Your task to perform on an android device: turn on showing notifications on the lock screen Image 0: 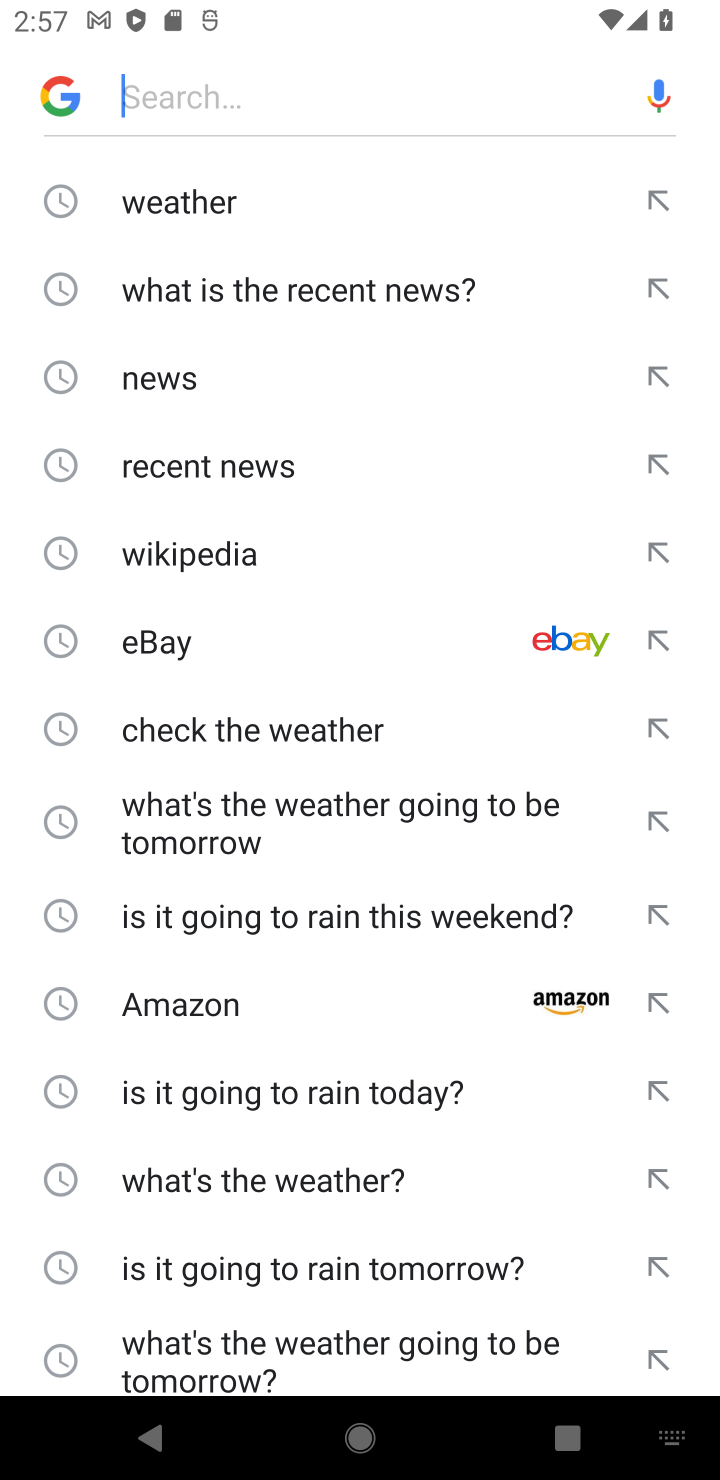
Step 0: press home button
Your task to perform on an android device: turn on showing notifications on the lock screen Image 1: 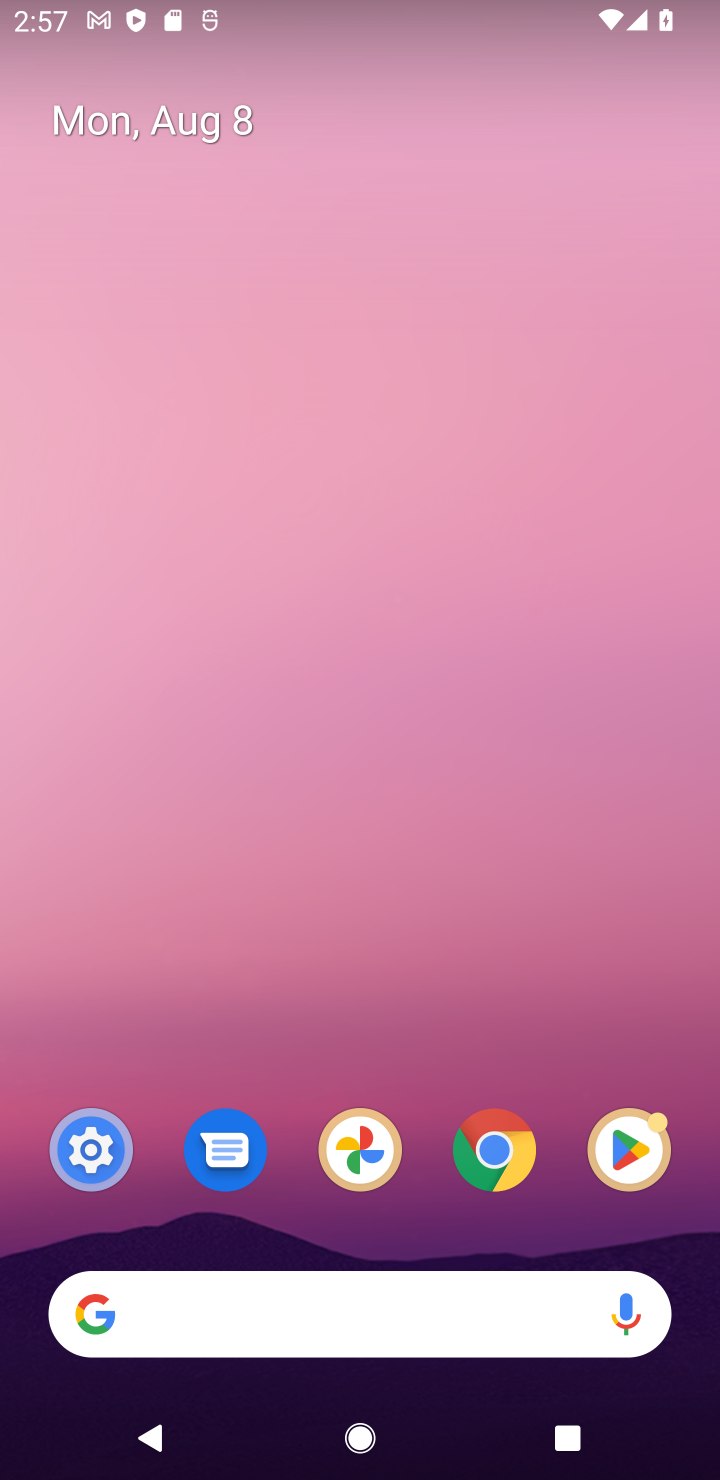
Step 1: click (111, 1181)
Your task to perform on an android device: turn on showing notifications on the lock screen Image 2: 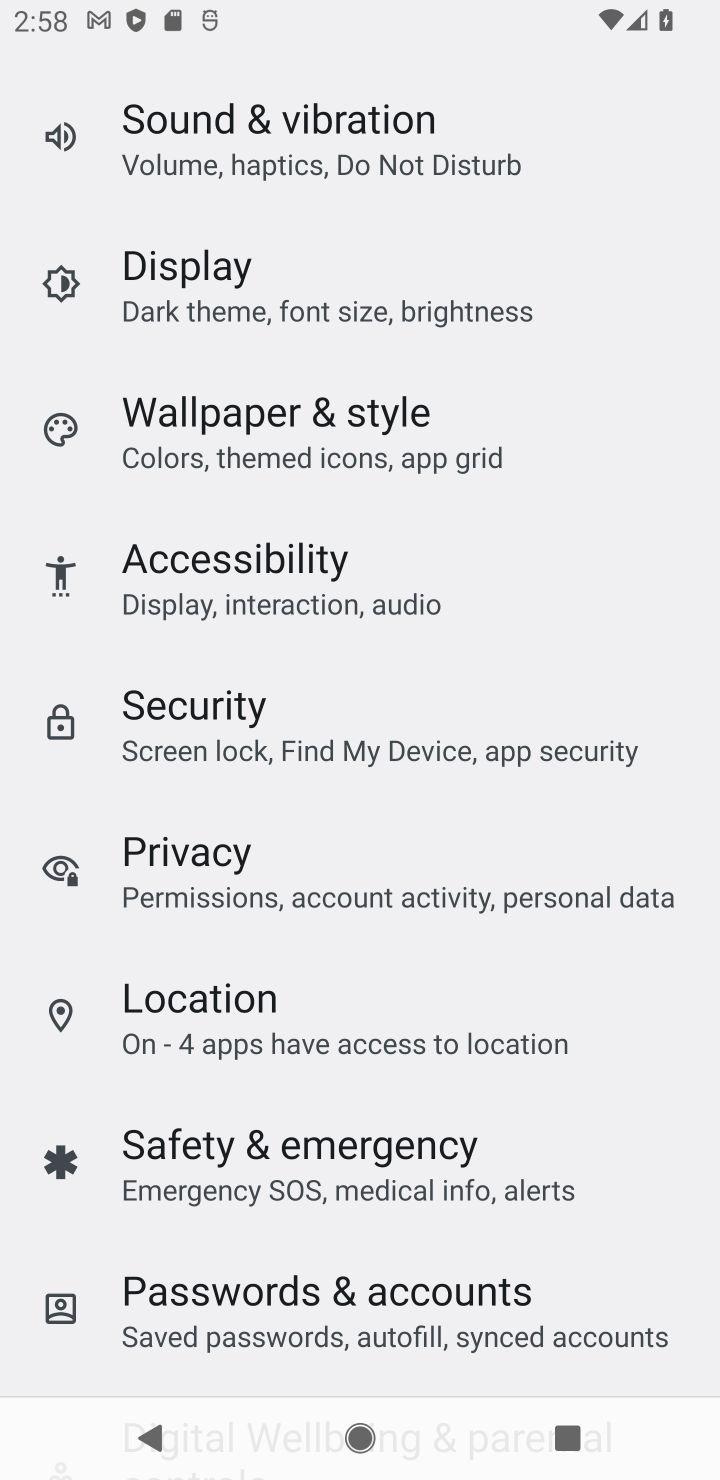
Step 2: task complete